Your task to perform on an android device: turn on translation in the chrome app Image 0: 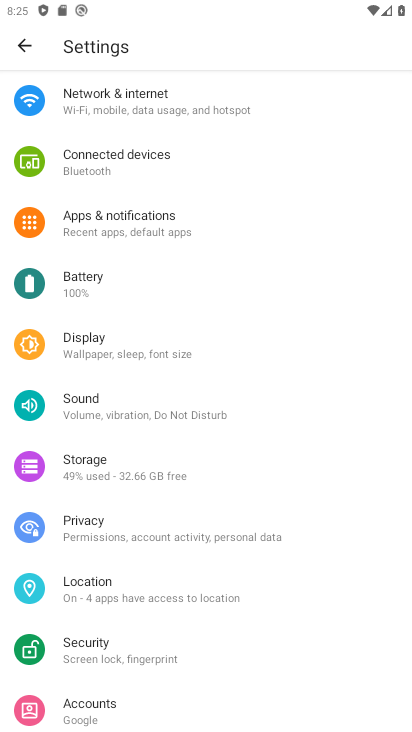
Step 0: press home button
Your task to perform on an android device: turn on translation in the chrome app Image 1: 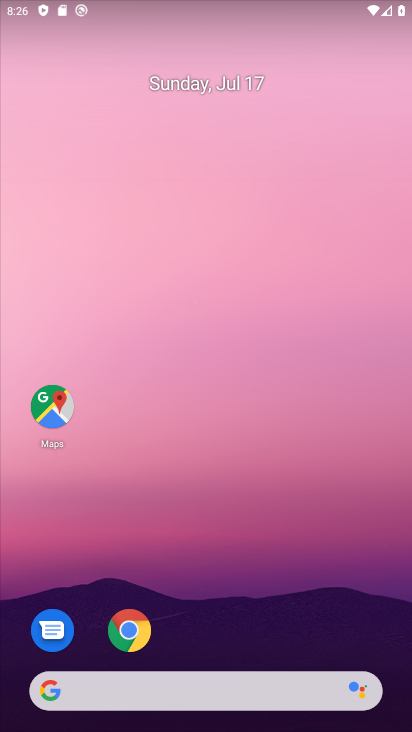
Step 1: click (145, 666)
Your task to perform on an android device: turn on translation in the chrome app Image 2: 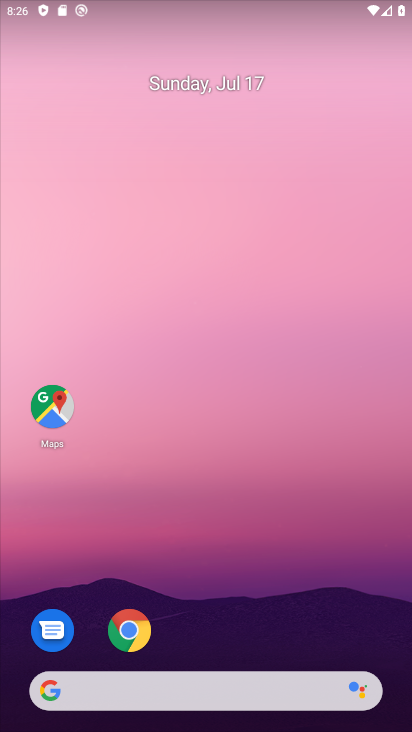
Step 2: click (139, 655)
Your task to perform on an android device: turn on translation in the chrome app Image 3: 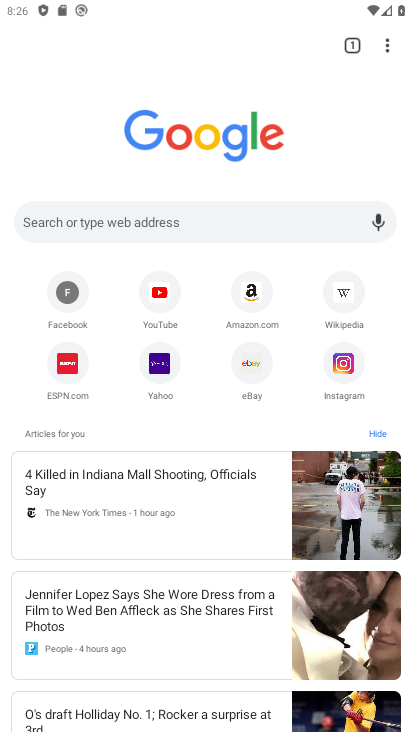
Step 3: click (380, 58)
Your task to perform on an android device: turn on translation in the chrome app Image 4: 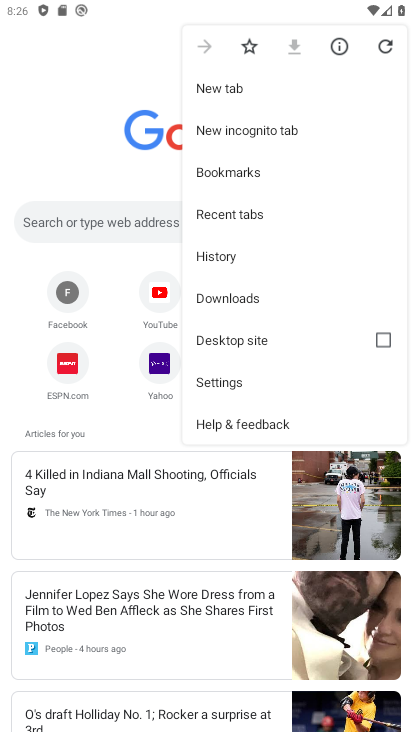
Step 4: click (263, 382)
Your task to perform on an android device: turn on translation in the chrome app Image 5: 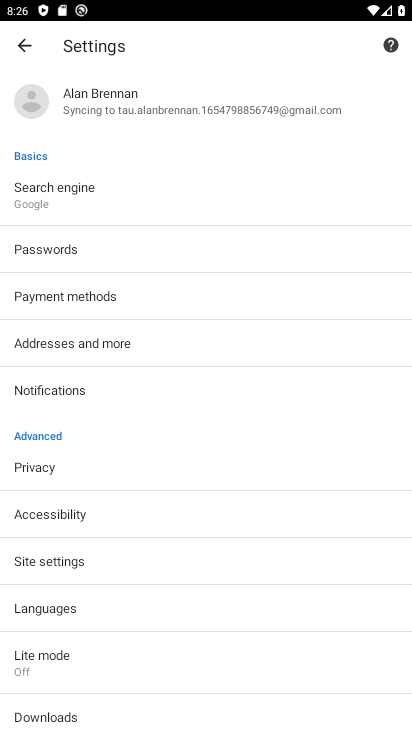
Step 5: click (132, 612)
Your task to perform on an android device: turn on translation in the chrome app Image 6: 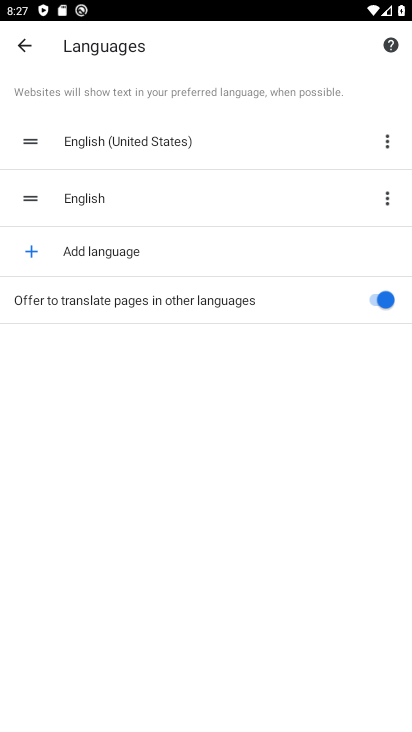
Step 6: task complete